Your task to perform on an android device: delete browsing data in the chrome app Image 0: 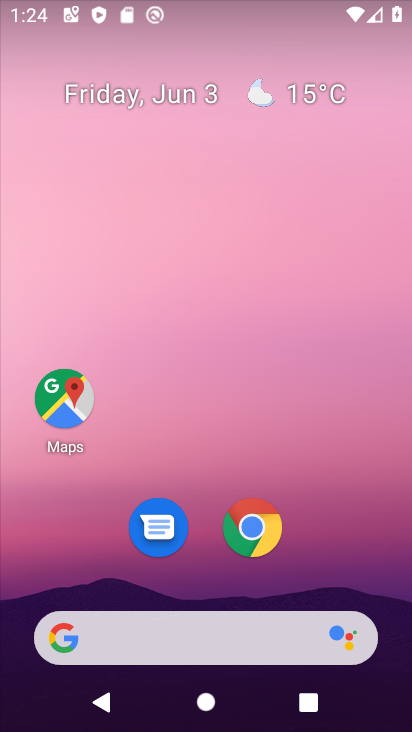
Step 0: click (267, 522)
Your task to perform on an android device: delete browsing data in the chrome app Image 1: 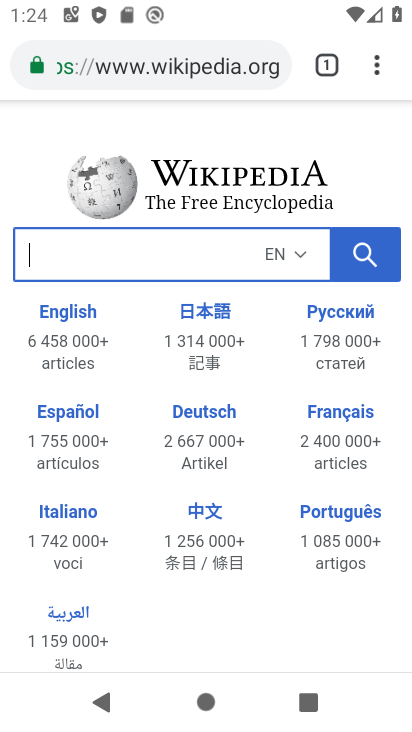
Step 1: click (377, 68)
Your task to perform on an android device: delete browsing data in the chrome app Image 2: 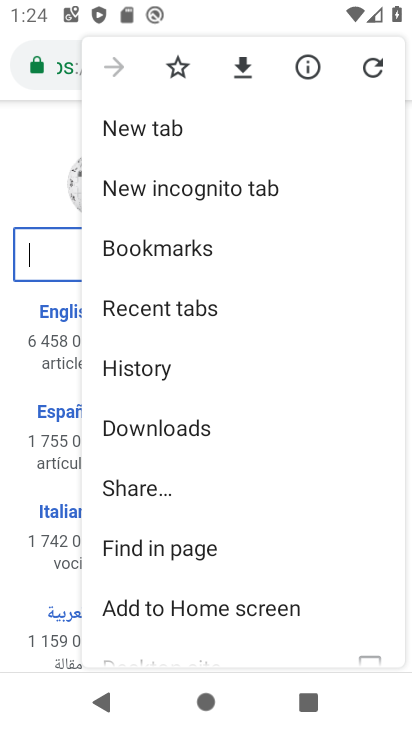
Step 2: click (259, 380)
Your task to perform on an android device: delete browsing data in the chrome app Image 3: 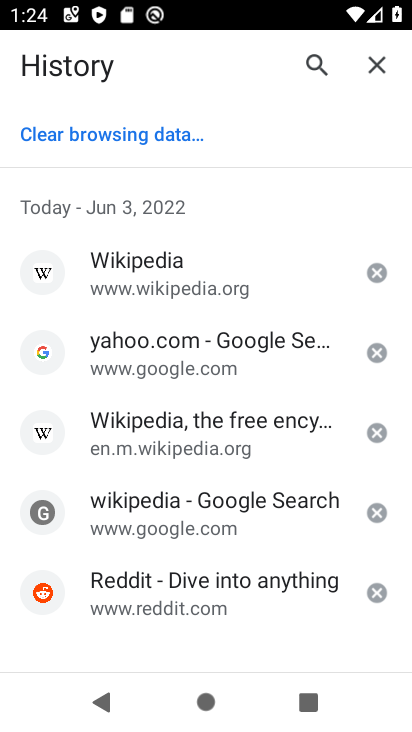
Step 3: click (183, 141)
Your task to perform on an android device: delete browsing data in the chrome app Image 4: 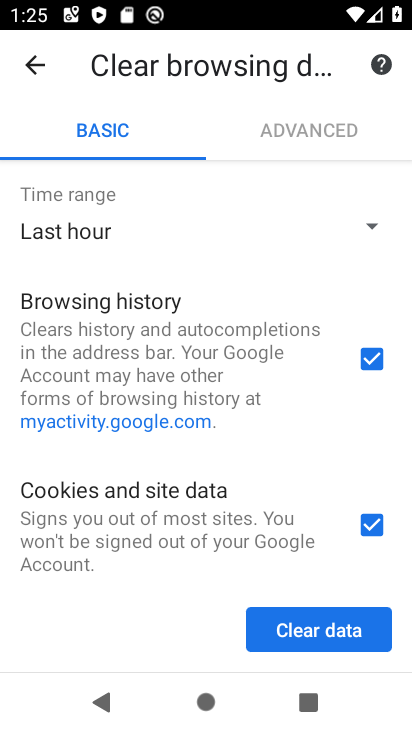
Step 4: click (241, 223)
Your task to perform on an android device: delete browsing data in the chrome app Image 5: 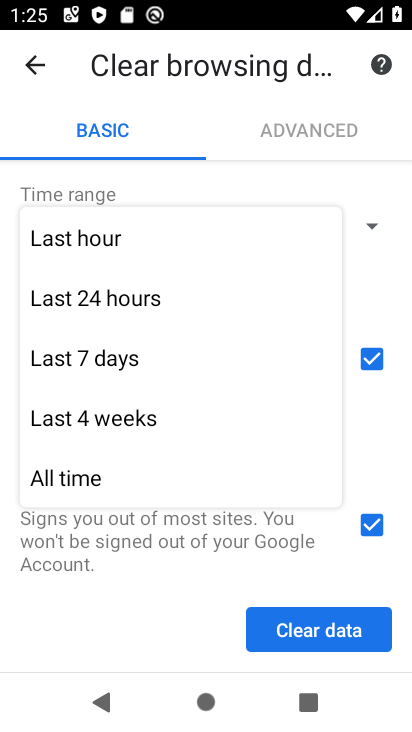
Step 5: click (248, 475)
Your task to perform on an android device: delete browsing data in the chrome app Image 6: 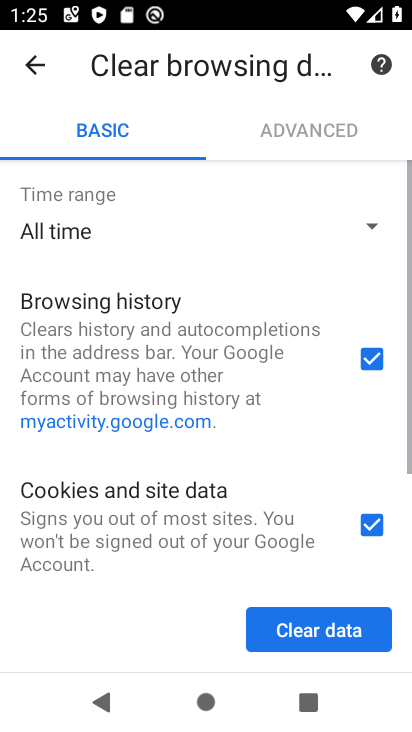
Step 6: click (321, 639)
Your task to perform on an android device: delete browsing data in the chrome app Image 7: 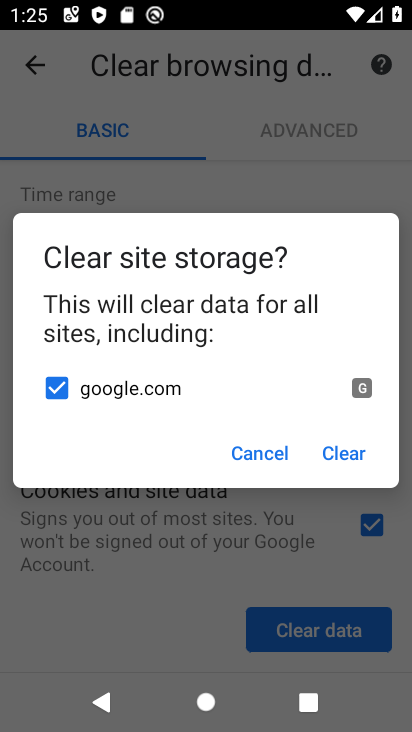
Step 7: click (347, 454)
Your task to perform on an android device: delete browsing data in the chrome app Image 8: 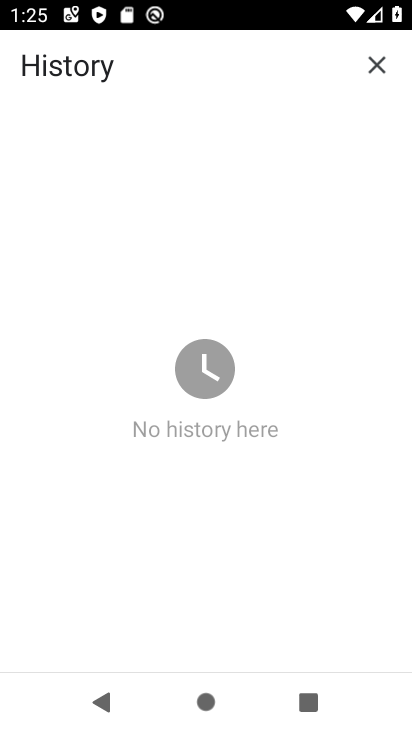
Step 8: task complete